Your task to perform on an android device: open app "The Home Depot" (install if not already installed) Image 0: 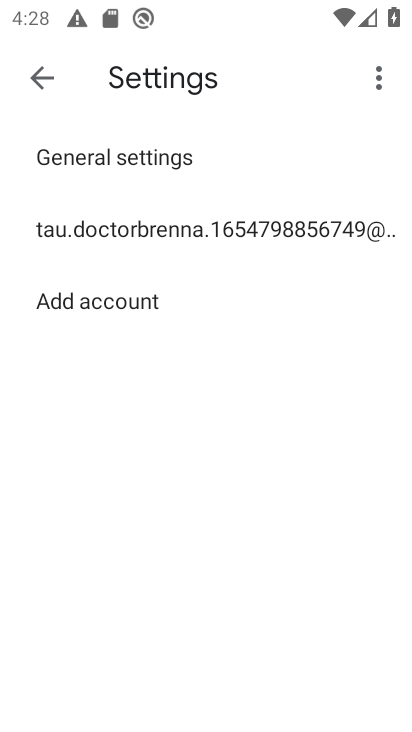
Step 0: press home button
Your task to perform on an android device: open app "The Home Depot" (install if not already installed) Image 1: 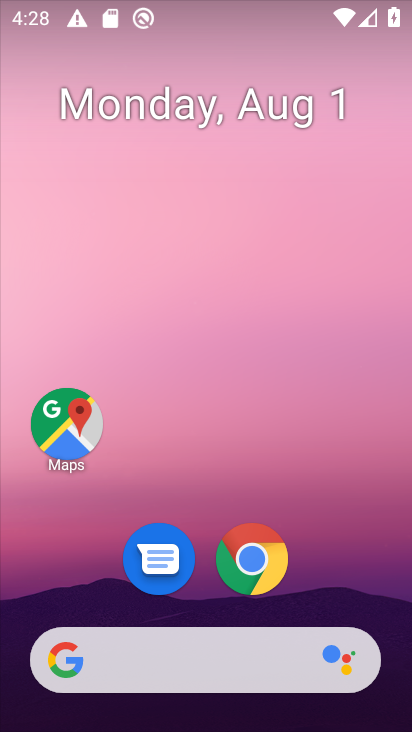
Step 1: drag from (306, 610) to (251, 222)
Your task to perform on an android device: open app "The Home Depot" (install if not already installed) Image 2: 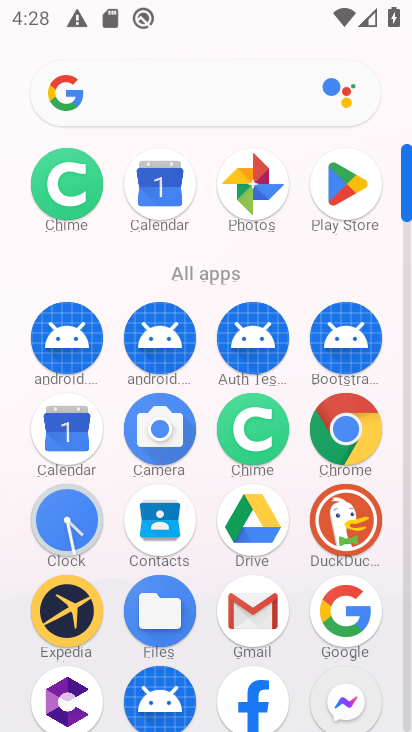
Step 2: click (344, 207)
Your task to perform on an android device: open app "The Home Depot" (install if not already installed) Image 3: 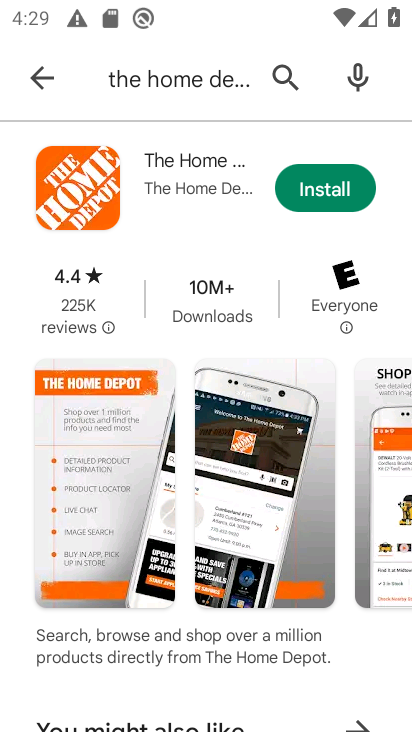
Step 3: click (313, 183)
Your task to perform on an android device: open app "The Home Depot" (install if not already installed) Image 4: 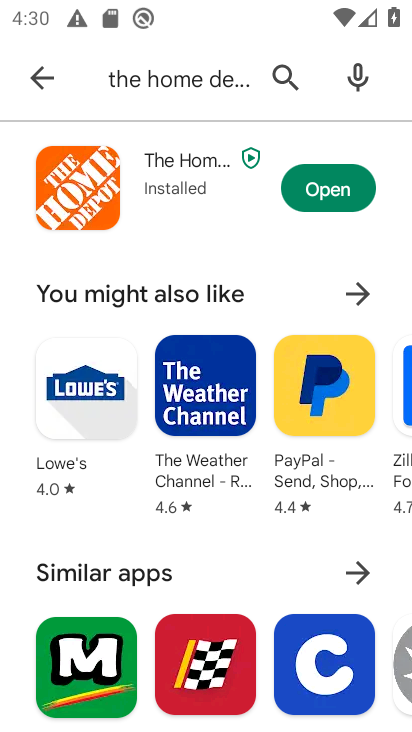
Step 4: click (317, 197)
Your task to perform on an android device: open app "The Home Depot" (install if not already installed) Image 5: 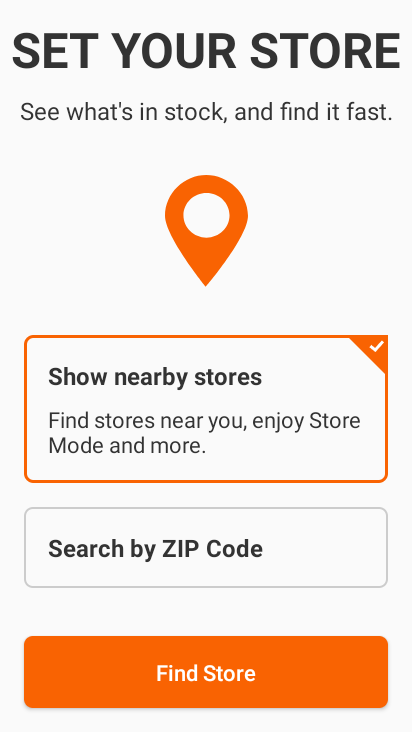
Step 5: task complete